Your task to perform on an android device: Go to Yahoo.com Image 0: 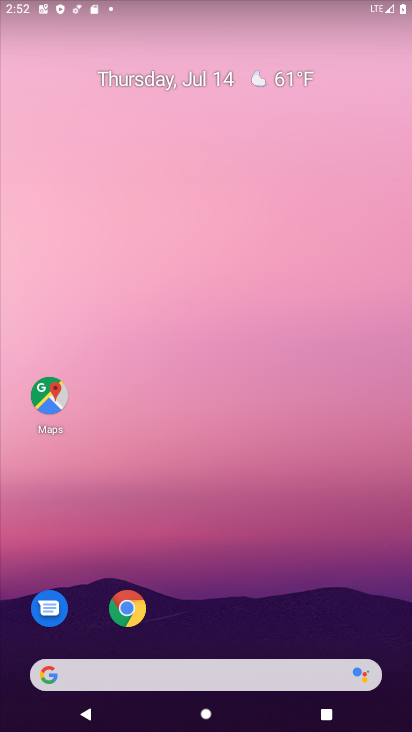
Step 0: click (126, 615)
Your task to perform on an android device: Go to Yahoo.com Image 1: 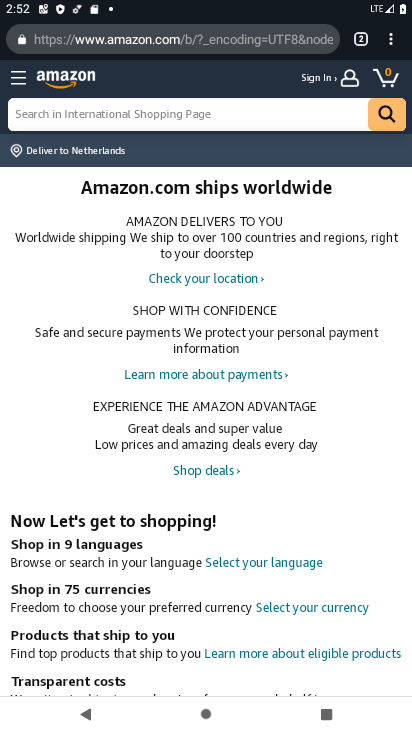
Step 1: click (358, 40)
Your task to perform on an android device: Go to Yahoo.com Image 2: 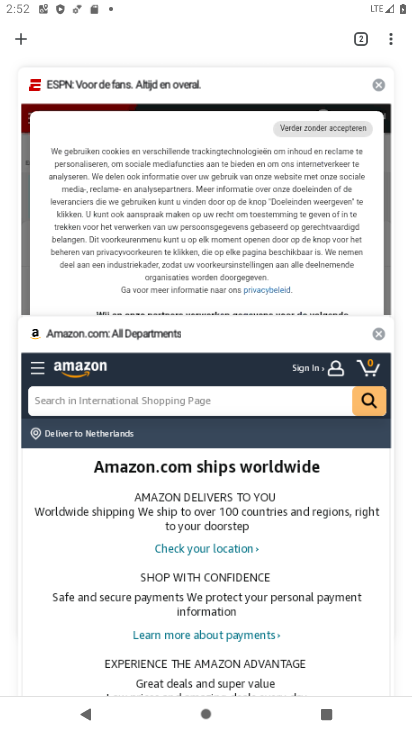
Step 2: click (375, 84)
Your task to perform on an android device: Go to Yahoo.com Image 3: 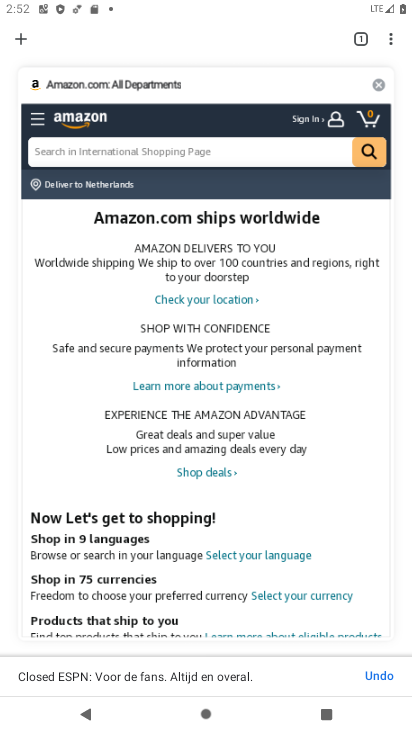
Step 3: click (371, 88)
Your task to perform on an android device: Go to Yahoo.com Image 4: 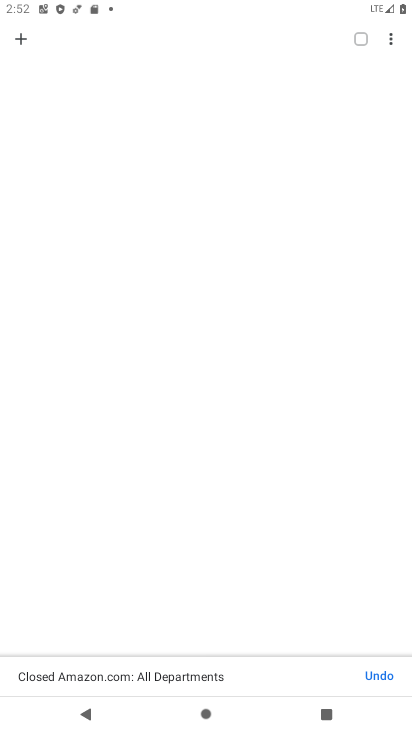
Step 4: click (18, 37)
Your task to perform on an android device: Go to Yahoo.com Image 5: 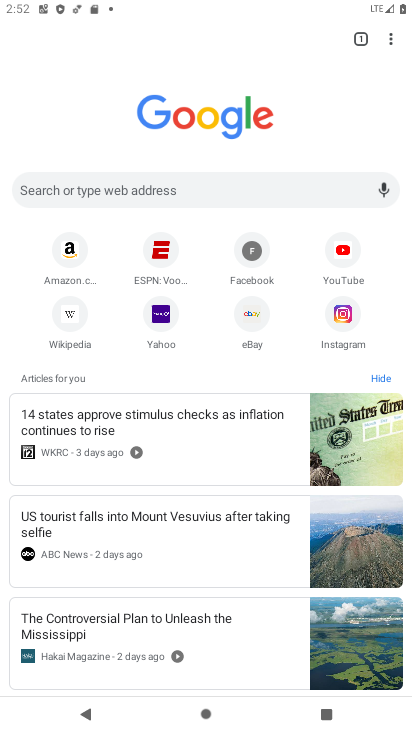
Step 5: click (159, 320)
Your task to perform on an android device: Go to Yahoo.com Image 6: 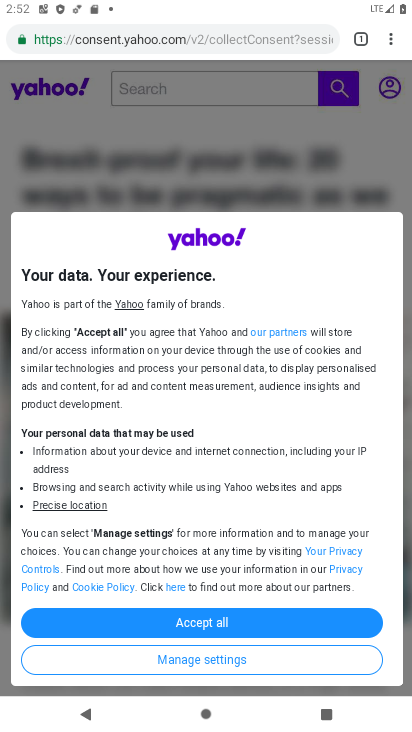
Step 6: task complete